Your task to perform on an android device: toggle javascript in the chrome app Image 0: 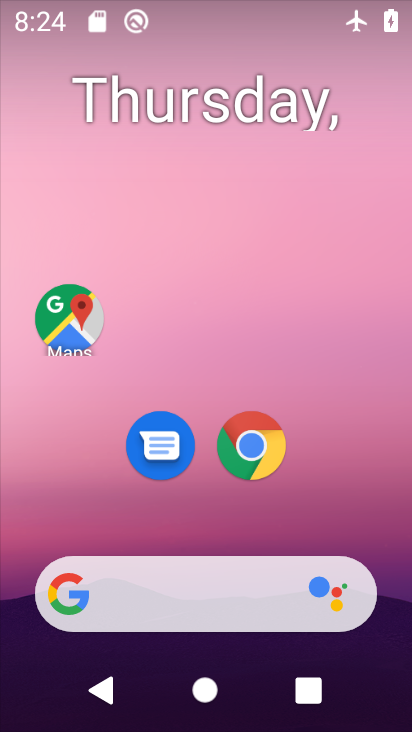
Step 0: click (270, 440)
Your task to perform on an android device: toggle javascript in the chrome app Image 1: 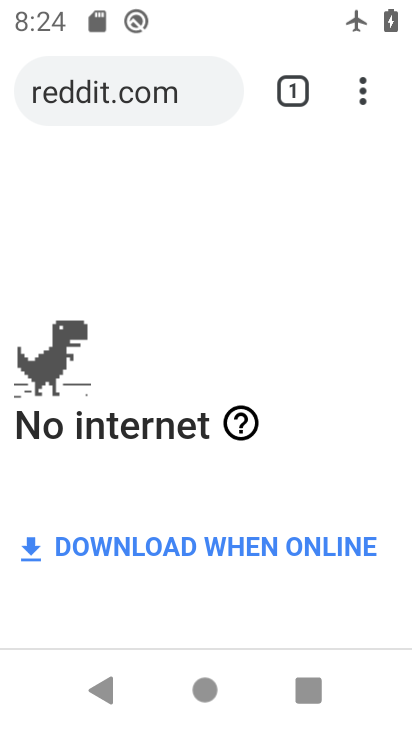
Step 1: click (366, 84)
Your task to perform on an android device: toggle javascript in the chrome app Image 2: 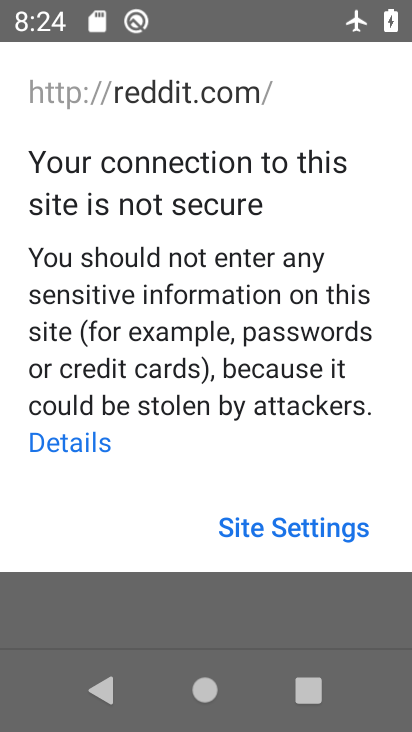
Step 2: press back button
Your task to perform on an android device: toggle javascript in the chrome app Image 3: 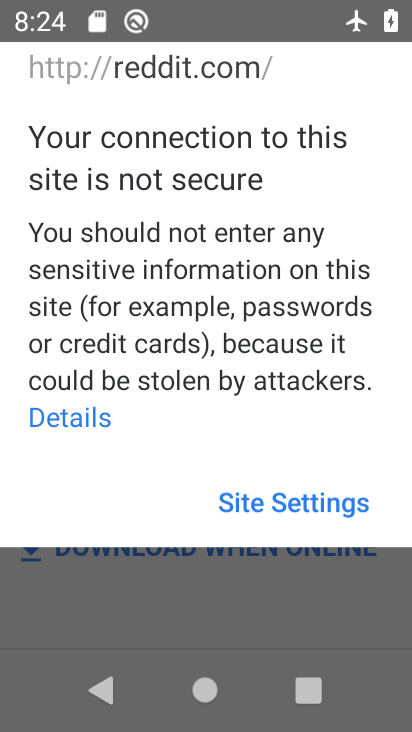
Step 3: press back button
Your task to perform on an android device: toggle javascript in the chrome app Image 4: 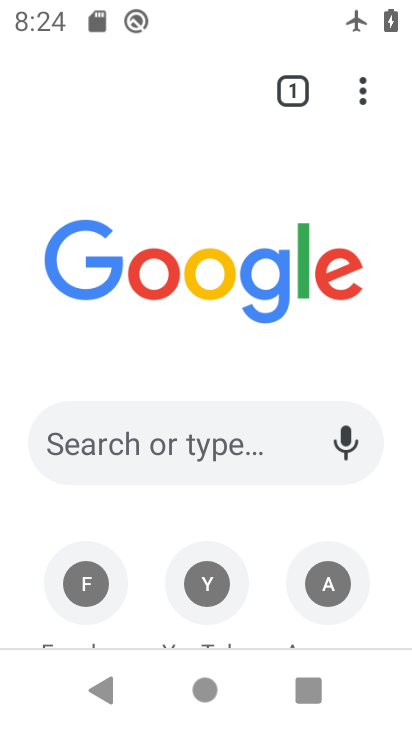
Step 4: click (366, 90)
Your task to perform on an android device: toggle javascript in the chrome app Image 5: 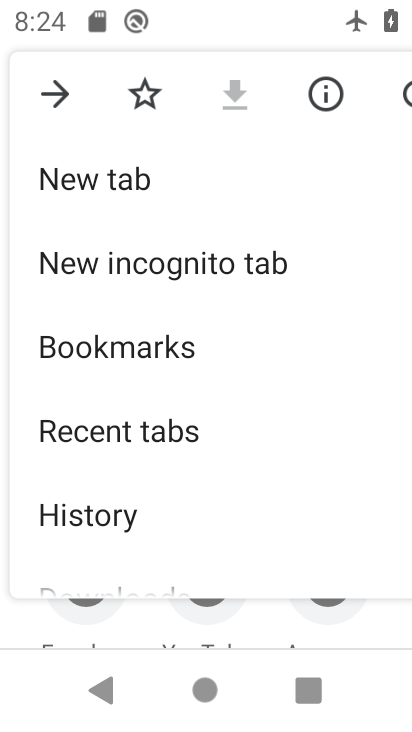
Step 5: drag from (176, 535) to (207, 156)
Your task to perform on an android device: toggle javascript in the chrome app Image 6: 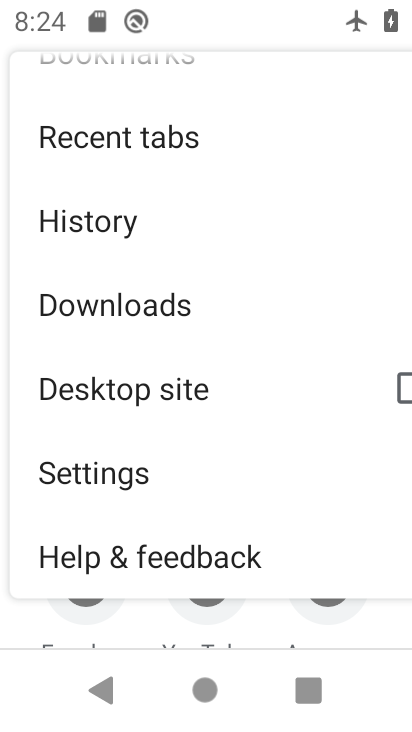
Step 6: click (143, 467)
Your task to perform on an android device: toggle javascript in the chrome app Image 7: 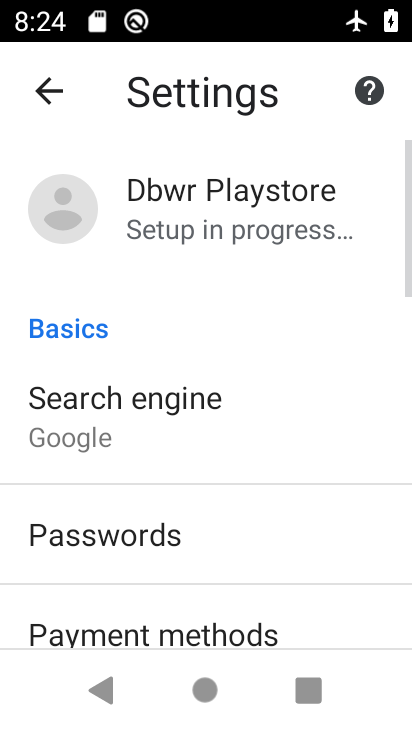
Step 7: drag from (160, 565) to (165, 232)
Your task to perform on an android device: toggle javascript in the chrome app Image 8: 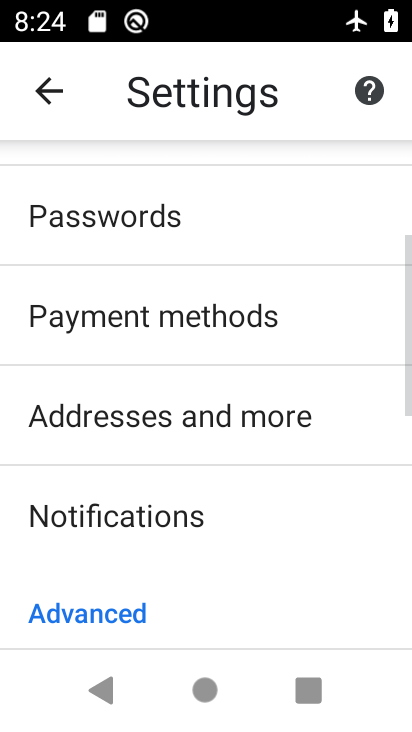
Step 8: drag from (256, 612) to (238, 327)
Your task to perform on an android device: toggle javascript in the chrome app Image 9: 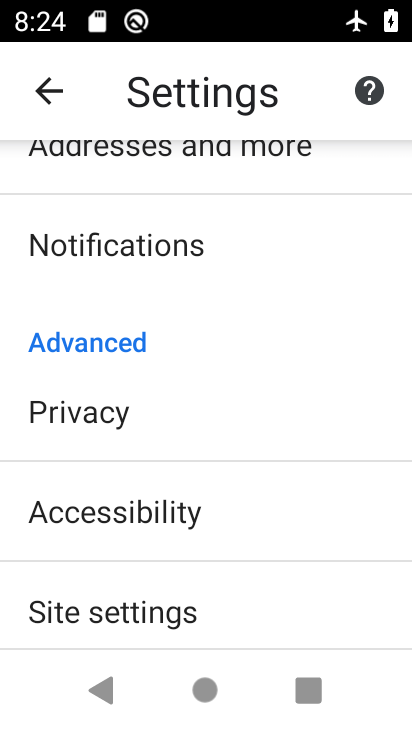
Step 9: click (107, 612)
Your task to perform on an android device: toggle javascript in the chrome app Image 10: 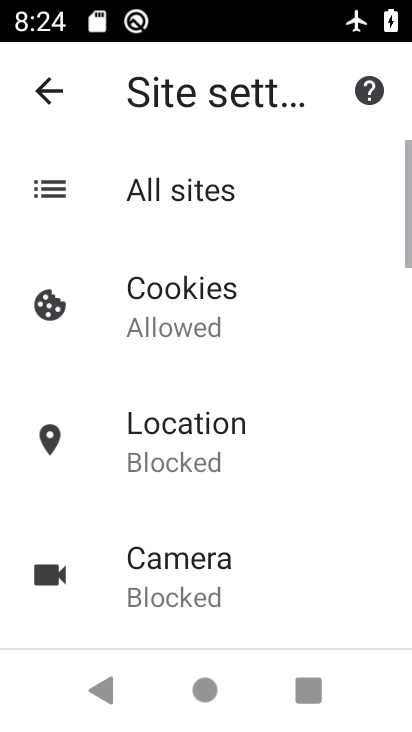
Step 10: drag from (110, 605) to (139, 290)
Your task to perform on an android device: toggle javascript in the chrome app Image 11: 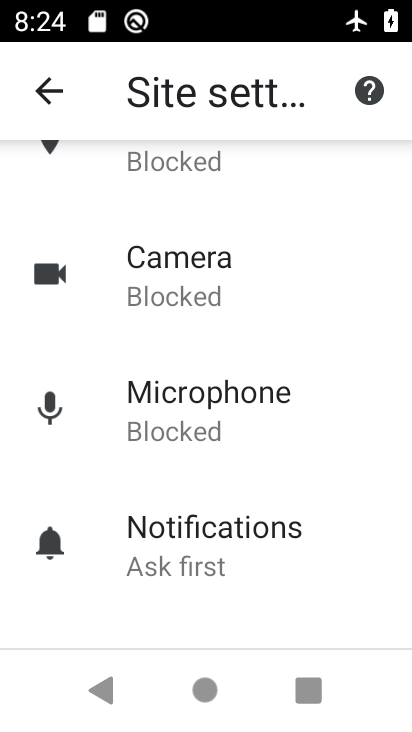
Step 11: drag from (135, 588) to (162, 297)
Your task to perform on an android device: toggle javascript in the chrome app Image 12: 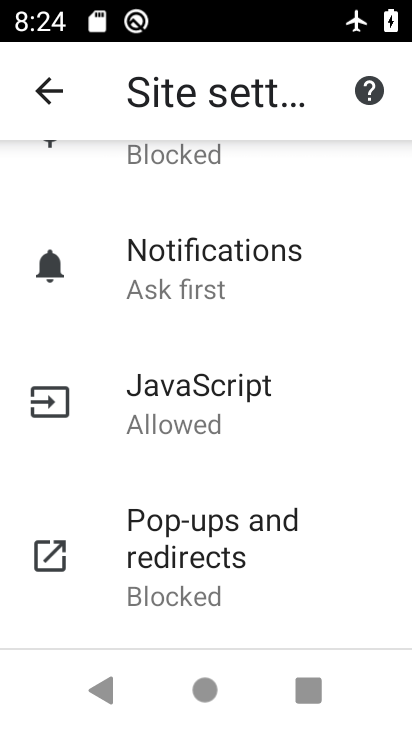
Step 12: click (191, 414)
Your task to perform on an android device: toggle javascript in the chrome app Image 13: 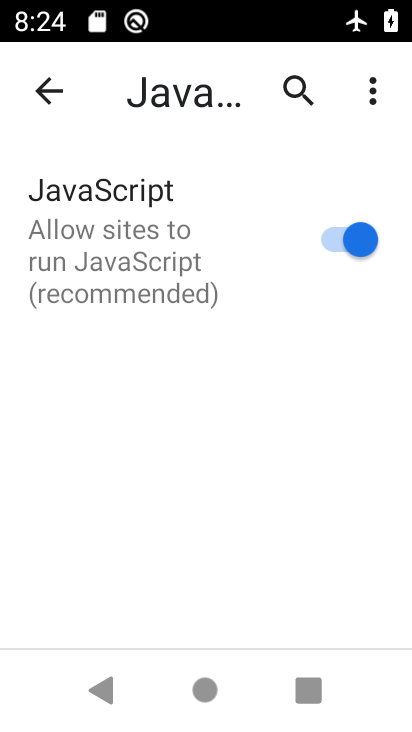
Step 13: click (351, 240)
Your task to perform on an android device: toggle javascript in the chrome app Image 14: 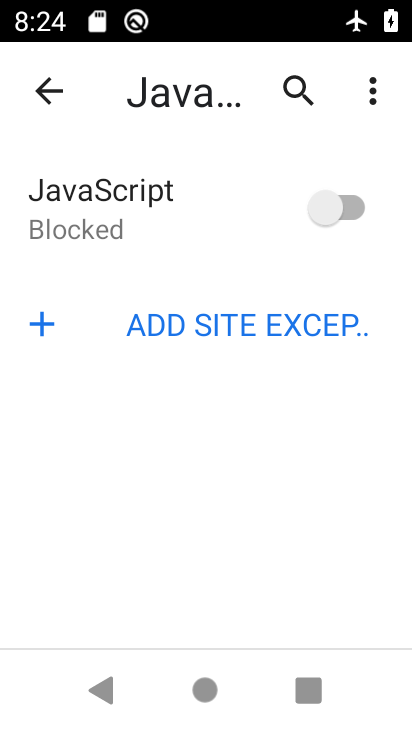
Step 14: task complete